Your task to perform on an android device: toggle wifi Image 0: 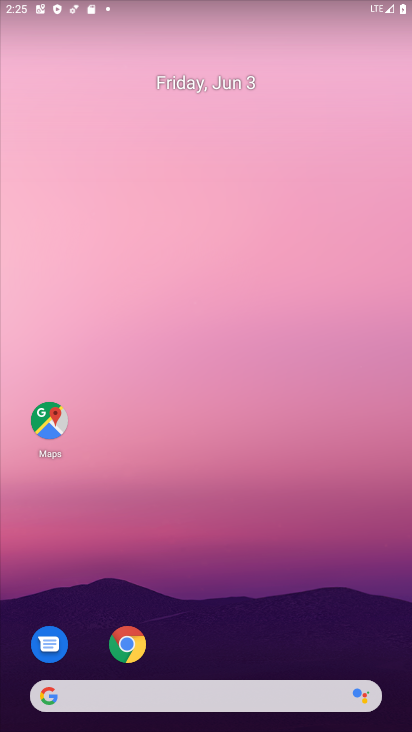
Step 0: drag from (208, 607) to (212, 121)
Your task to perform on an android device: toggle wifi Image 1: 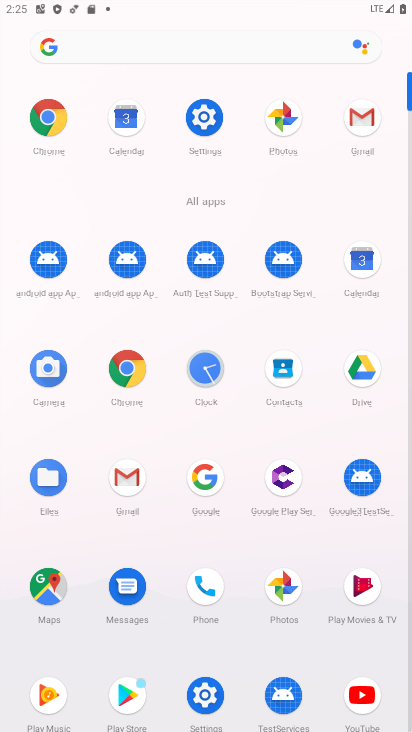
Step 1: click (214, 131)
Your task to perform on an android device: toggle wifi Image 2: 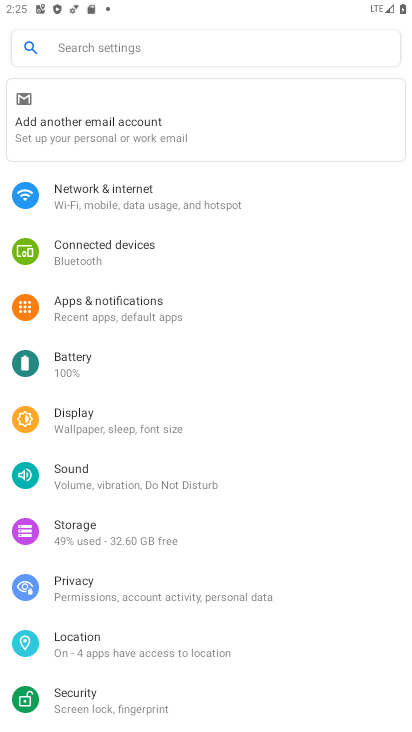
Step 2: click (98, 207)
Your task to perform on an android device: toggle wifi Image 3: 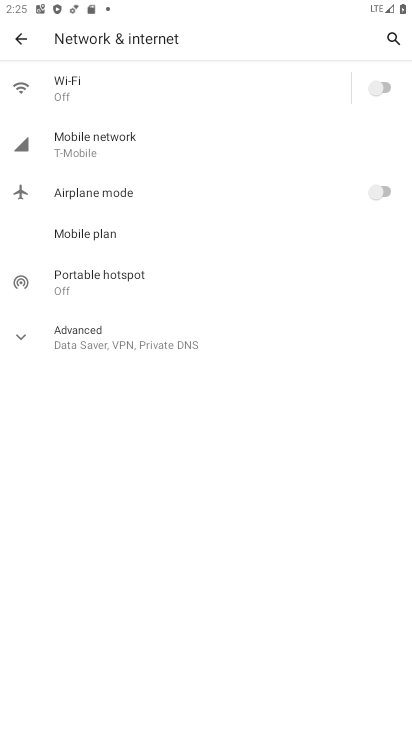
Step 3: click (382, 84)
Your task to perform on an android device: toggle wifi Image 4: 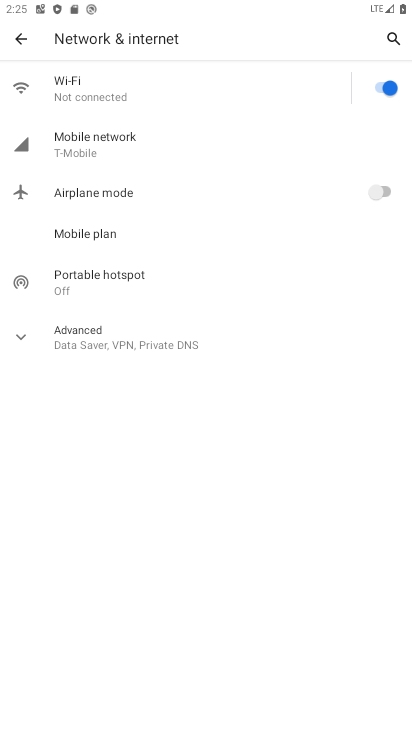
Step 4: task complete